Your task to perform on an android device: toggle pop-ups in chrome Image 0: 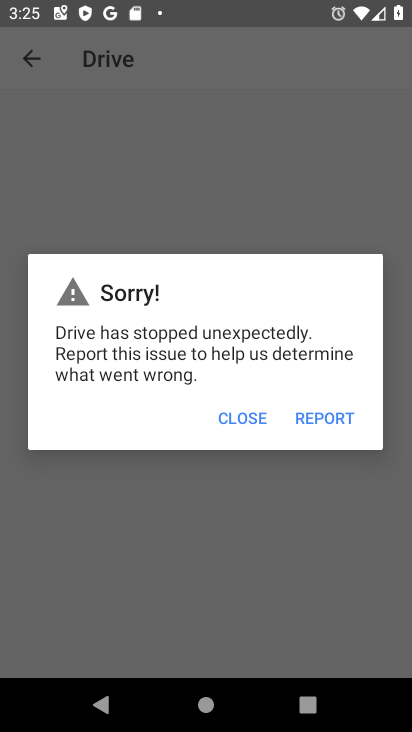
Step 0: press home button
Your task to perform on an android device: toggle pop-ups in chrome Image 1: 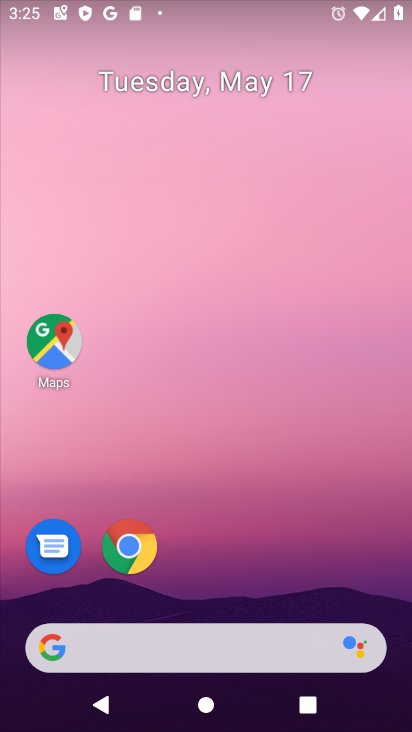
Step 1: click (363, 294)
Your task to perform on an android device: toggle pop-ups in chrome Image 2: 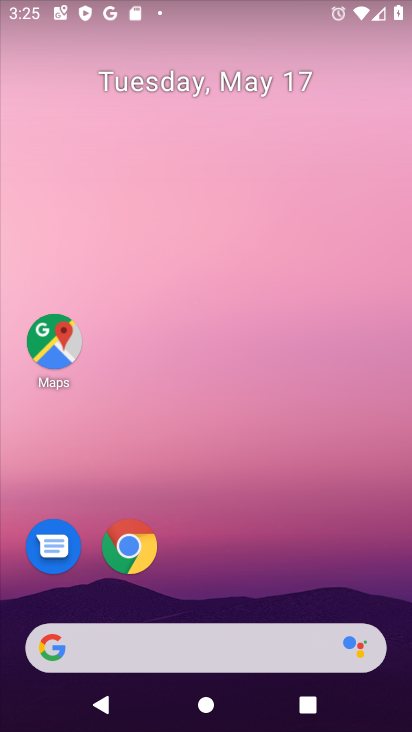
Step 2: click (121, 559)
Your task to perform on an android device: toggle pop-ups in chrome Image 3: 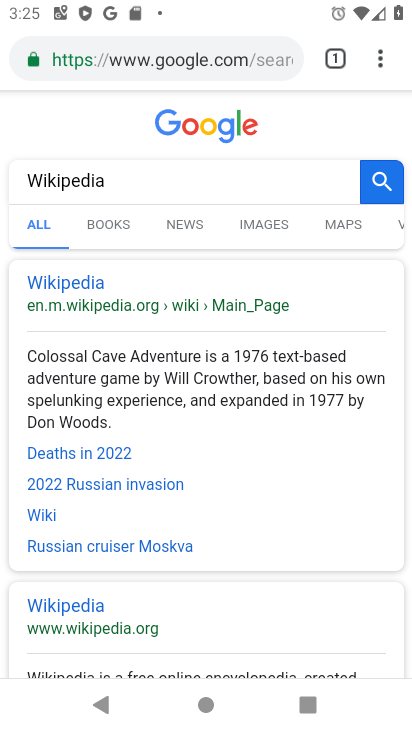
Step 3: click (382, 52)
Your task to perform on an android device: toggle pop-ups in chrome Image 4: 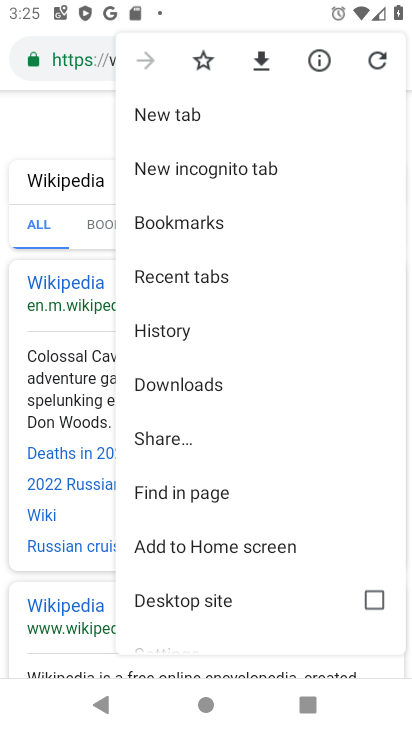
Step 4: drag from (297, 595) to (303, 344)
Your task to perform on an android device: toggle pop-ups in chrome Image 5: 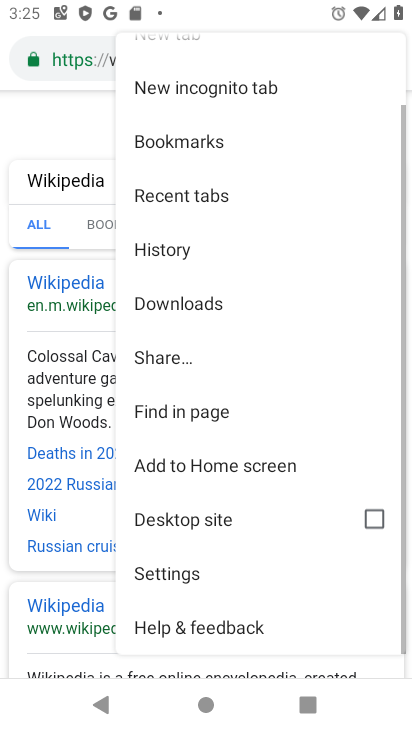
Step 5: click (174, 568)
Your task to perform on an android device: toggle pop-ups in chrome Image 6: 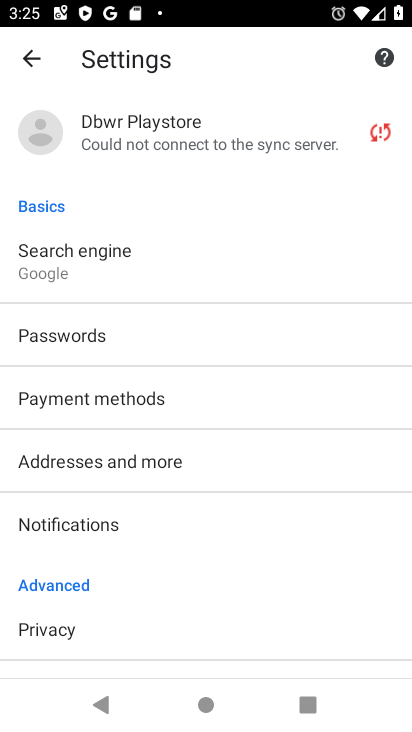
Step 6: drag from (195, 630) to (205, 300)
Your task to perform on an android device: toggle pop-ups in chrome Image 7: 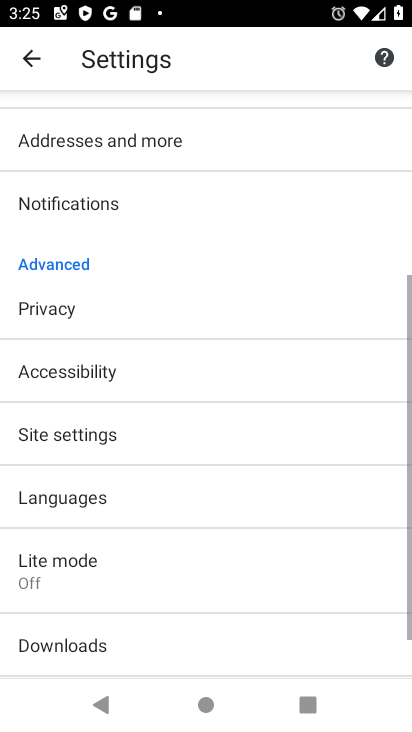
Step 7: click (31, 428)
Your task to perform on an android device: toggle pop-ups in chrome Image 8: 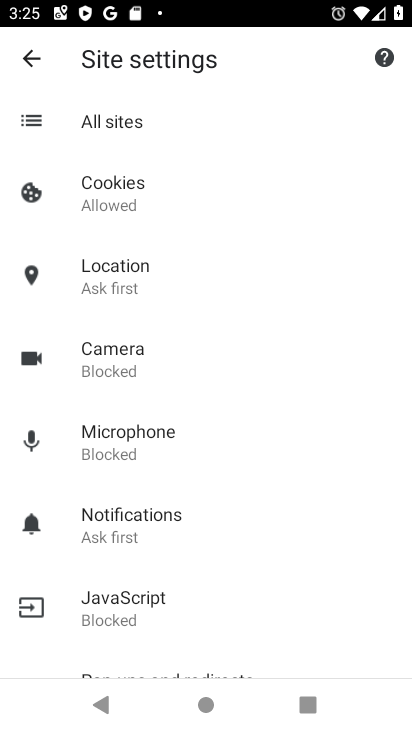
Step 8: drag from (222, 461) to (219, 395)
Your task to perform on an android device: toggle pop-ups in chrome Image 9: 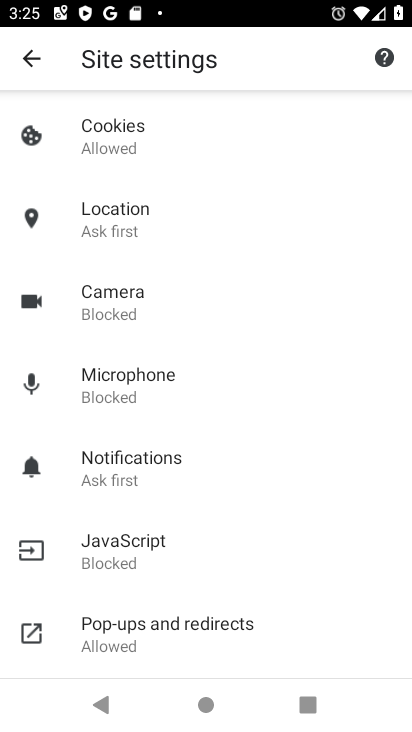
Step 9: click (110, 627)
Your task to perform on an android device: toggle pop-ups in chrome Image 10: 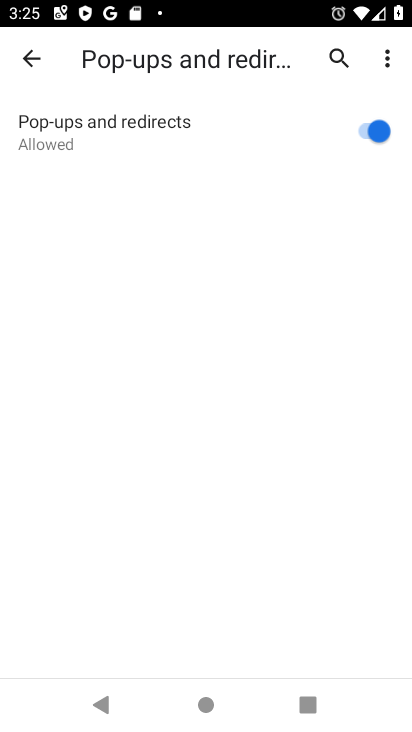
Step 10: click (365, 124)
Your task to perform on an android device: toggle pop-ups in chrome Image 11: 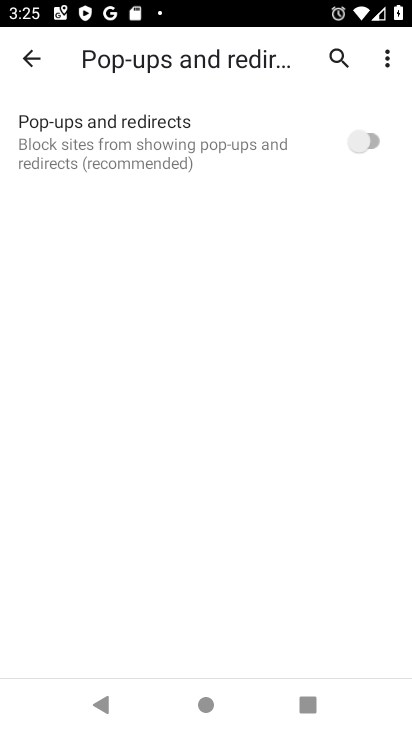
Step 11: task complete